Your task to perform on an android device: toggle translation in the chrome app Image 0: 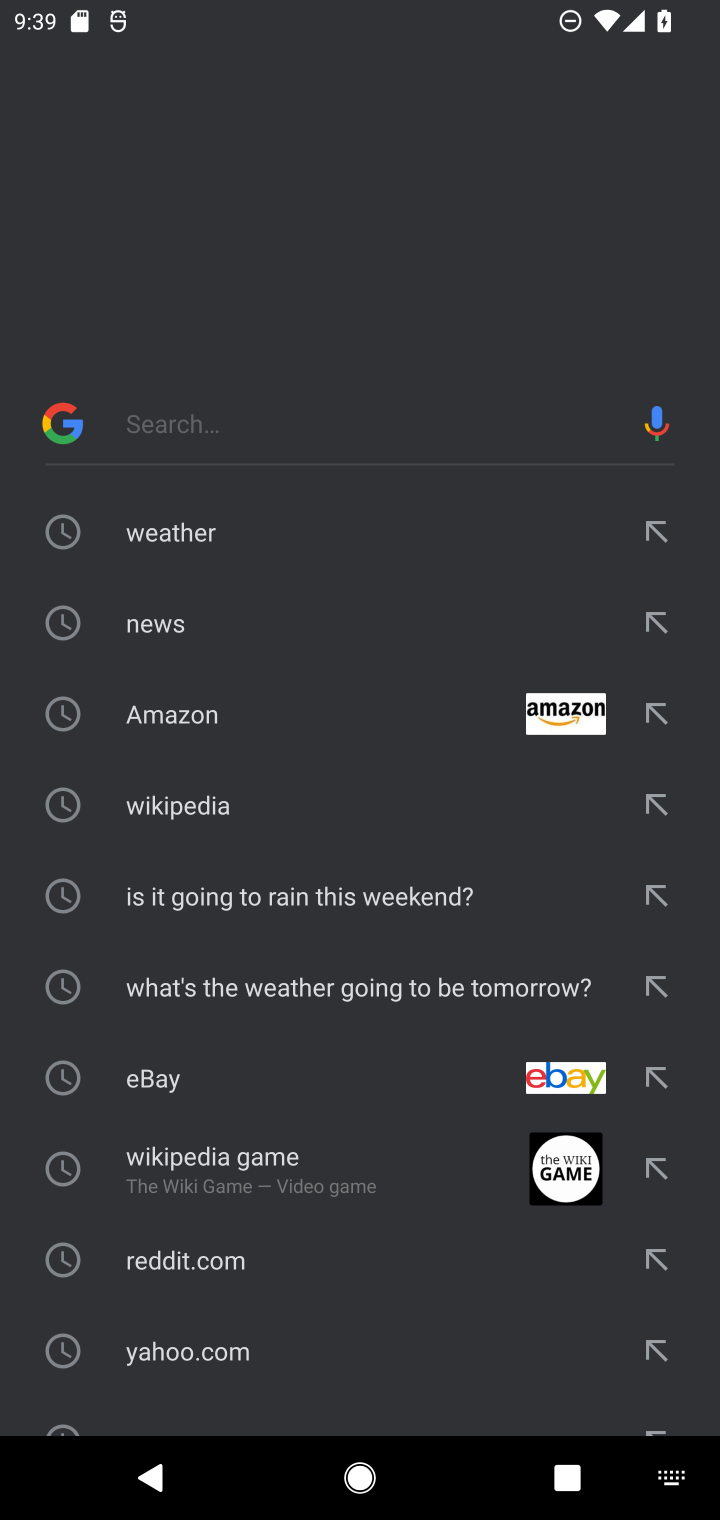
Step 0: press home button
Your task to perform on an android device: toggle translation in the chrome app Image 1: 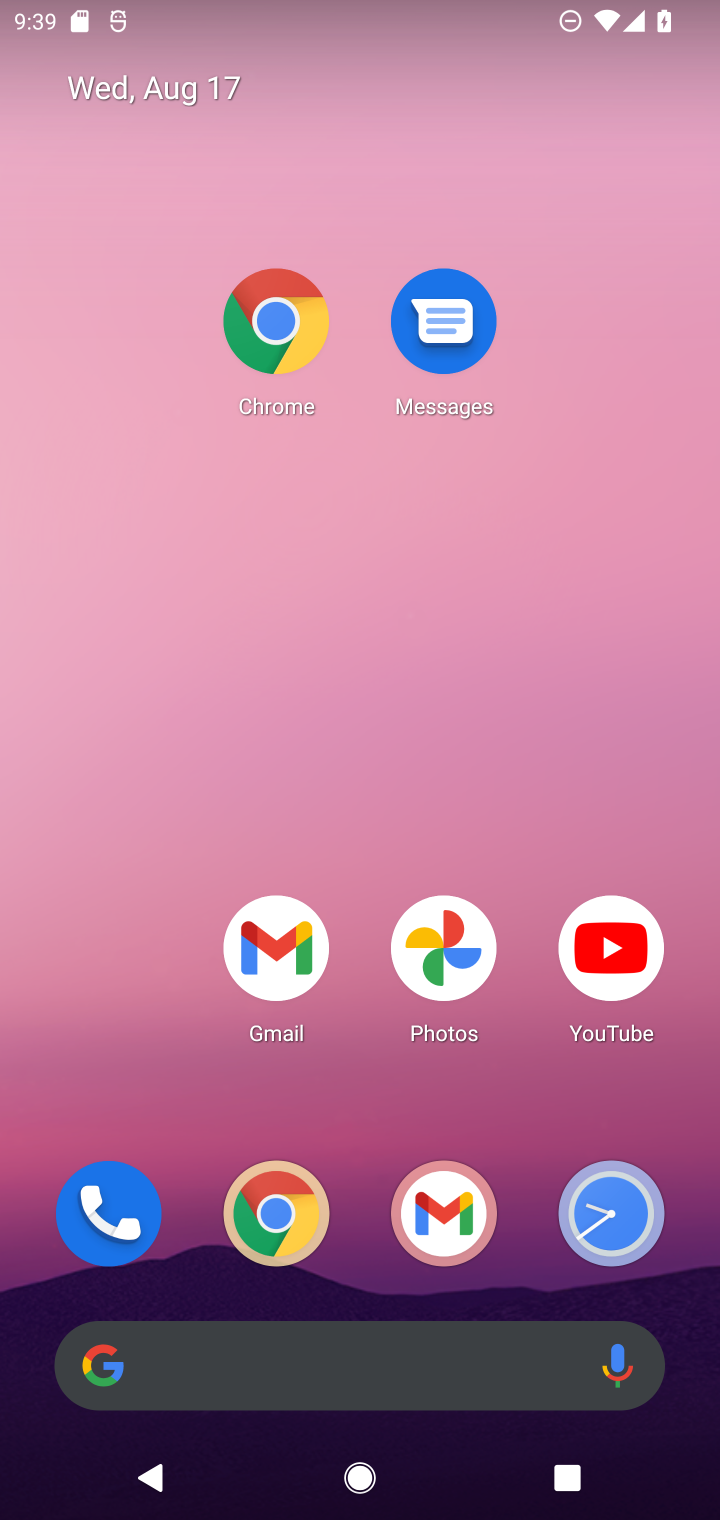
Step 1: click (274, 1189)
Your task to perform on an android device: toggle translation in the chrome app Image 2: 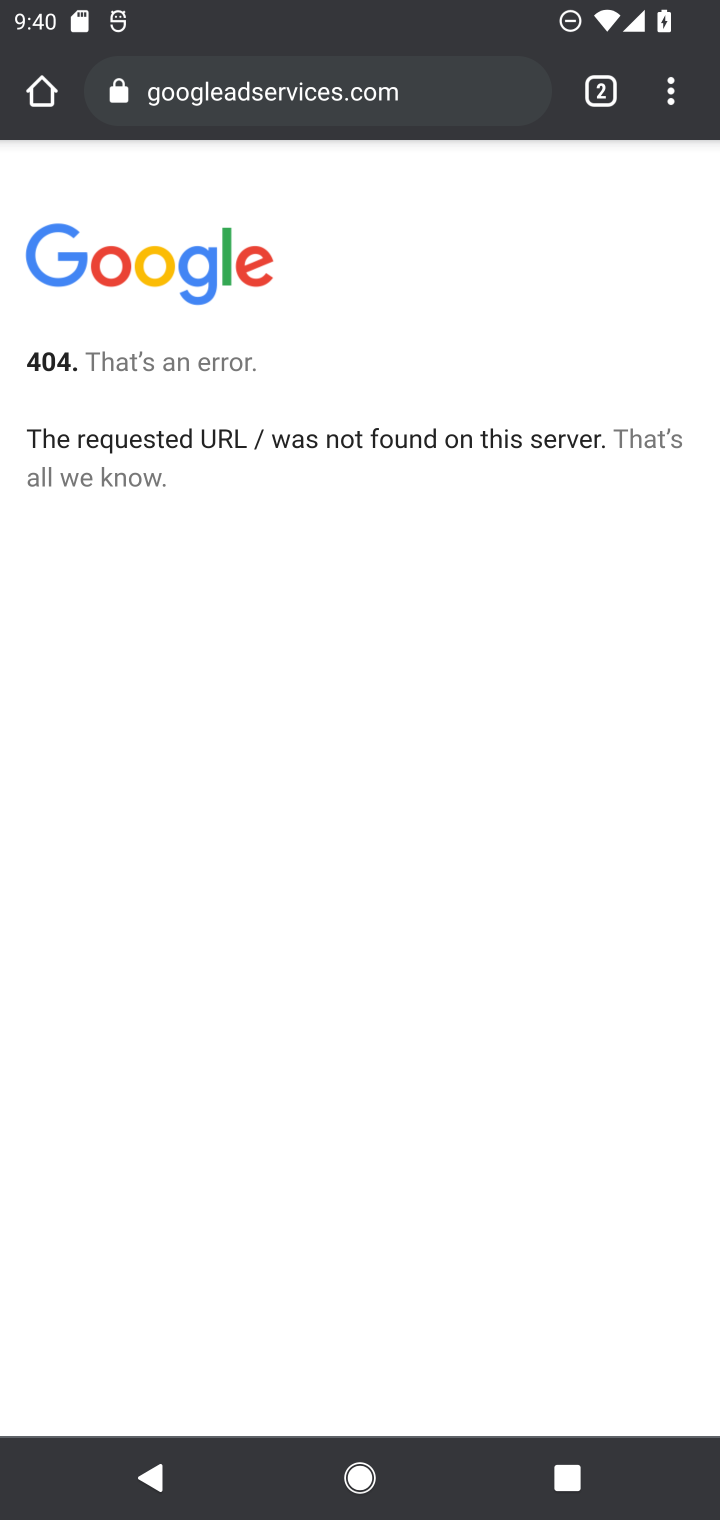
Step 2: click (693, 103)
Your task to perform on an android device: toggle translation in the chrome app Image 3: 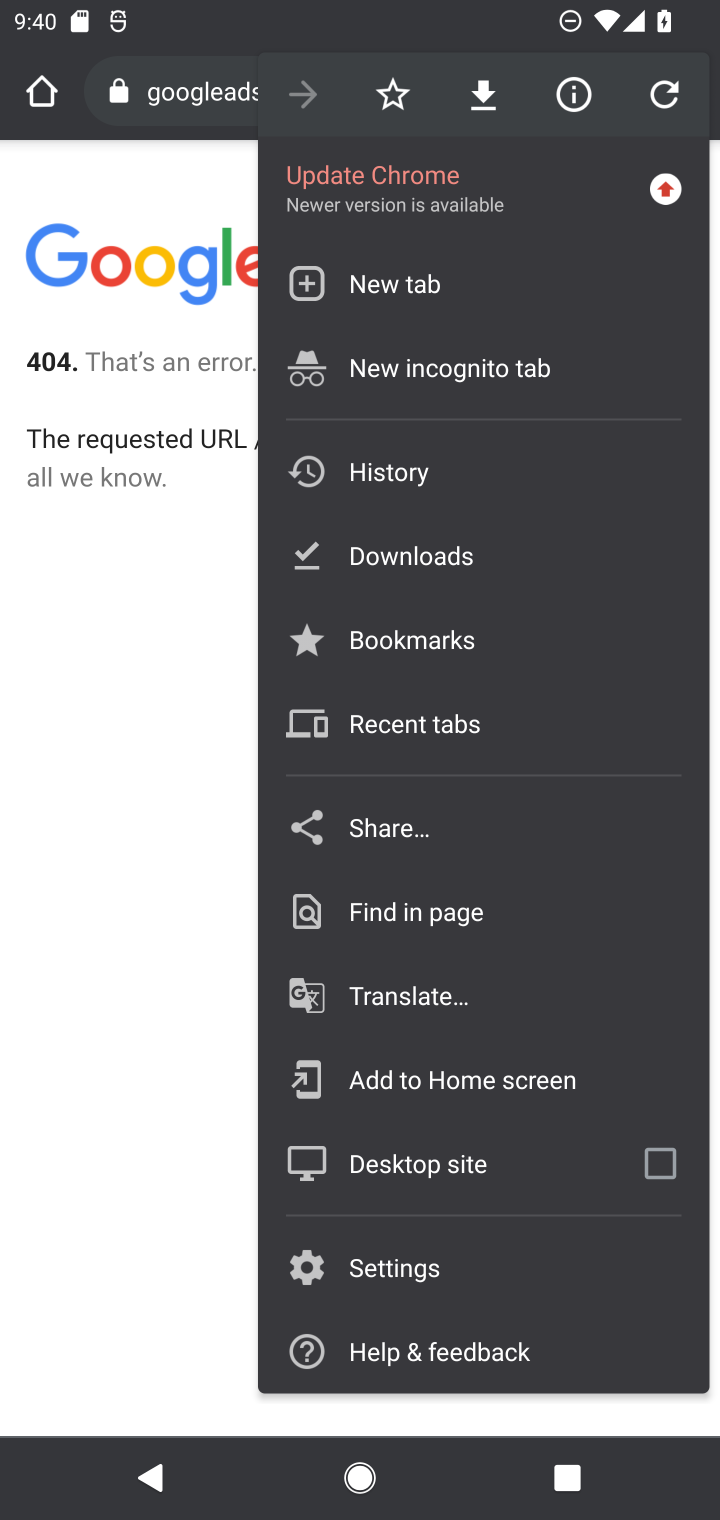
Step 3: click (403, 1240)
Your task to perform on an android device: toggle translation in the chrome app Image 4: 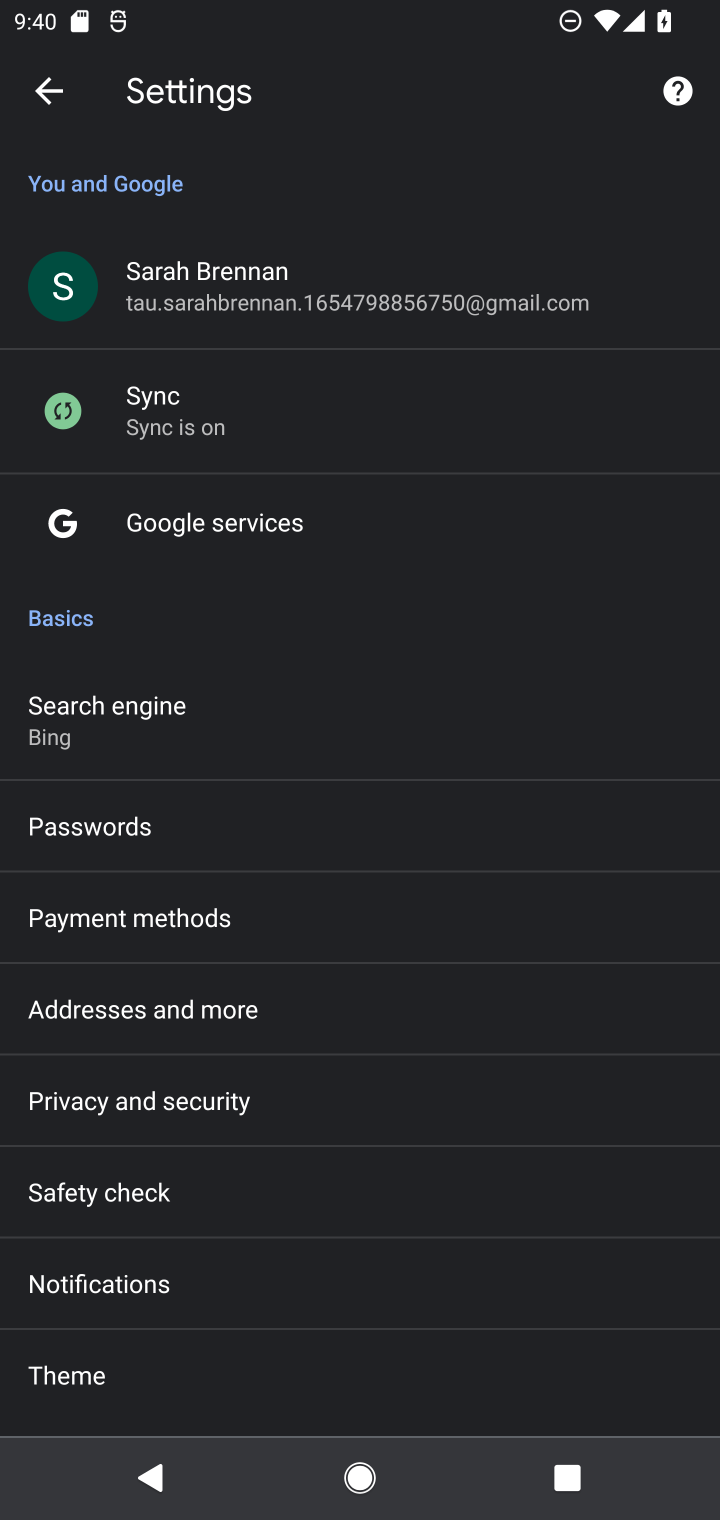
Step 4: drag from (292, 1270) to (294, 738)
Your task to perform on an android device: toggle translation in the chrome app Image 5: 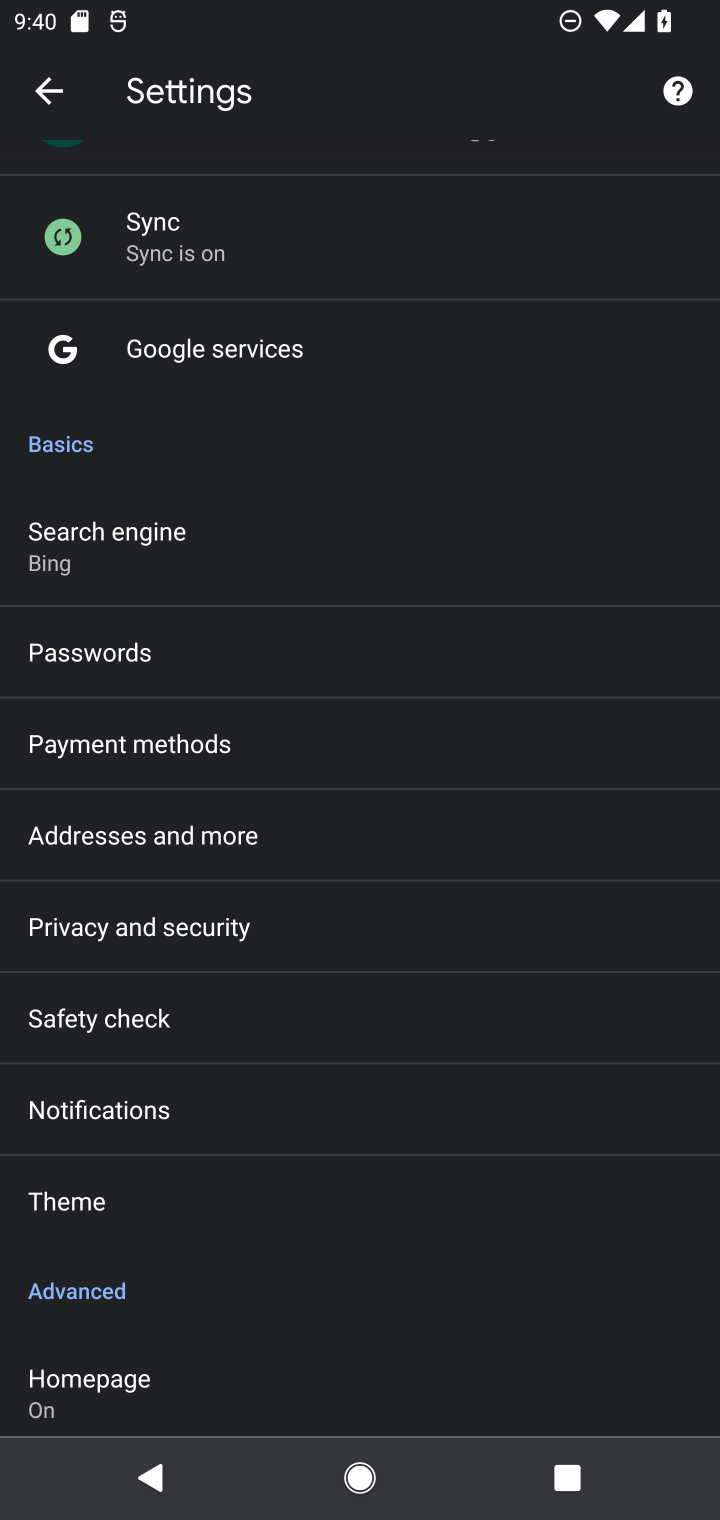
Step 5: drag from (268, 1313) to (221, 823)
Your task to perform on an android device: toggle translation in the chrome app Image 6: 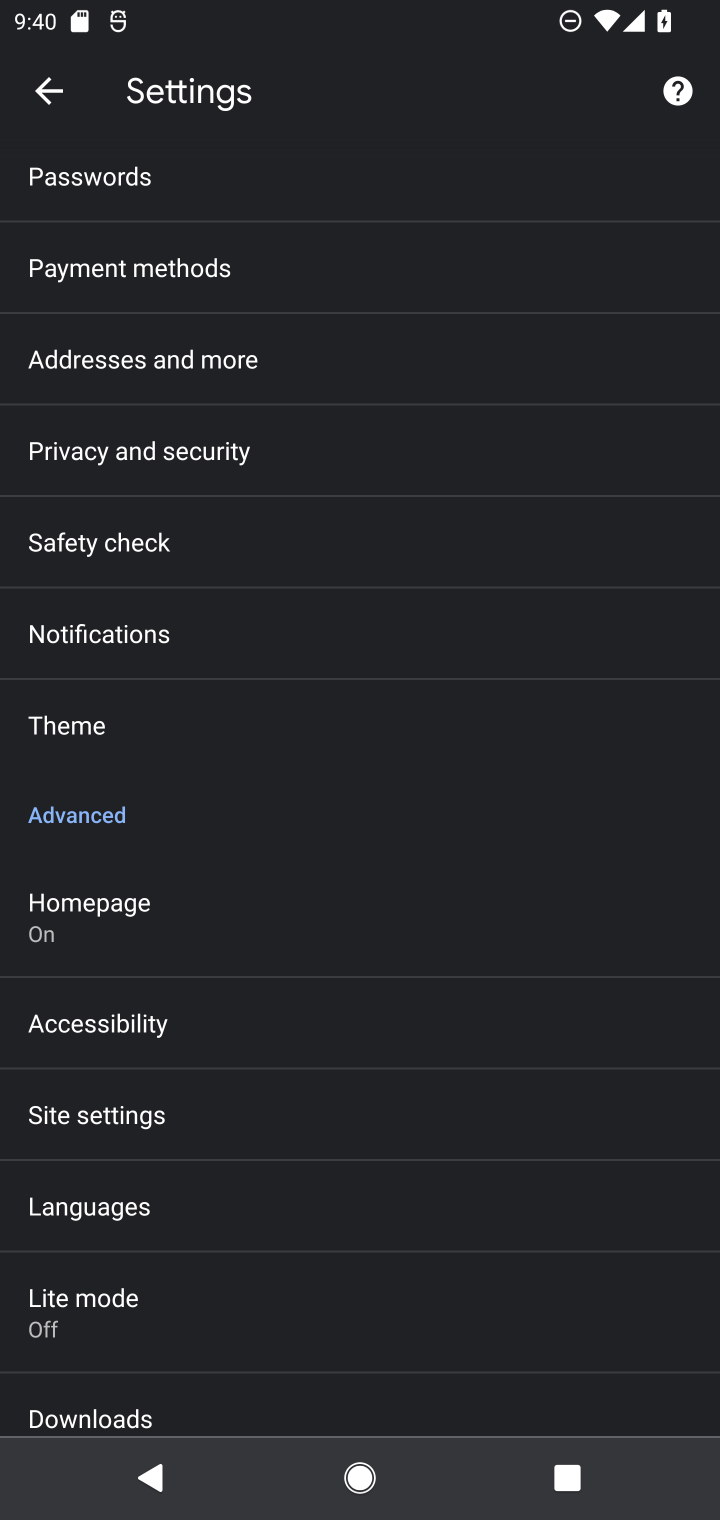
Step 6: click (224, 1188)
Your task to perform on an android device: toggle translation in the chrome app Image 7: 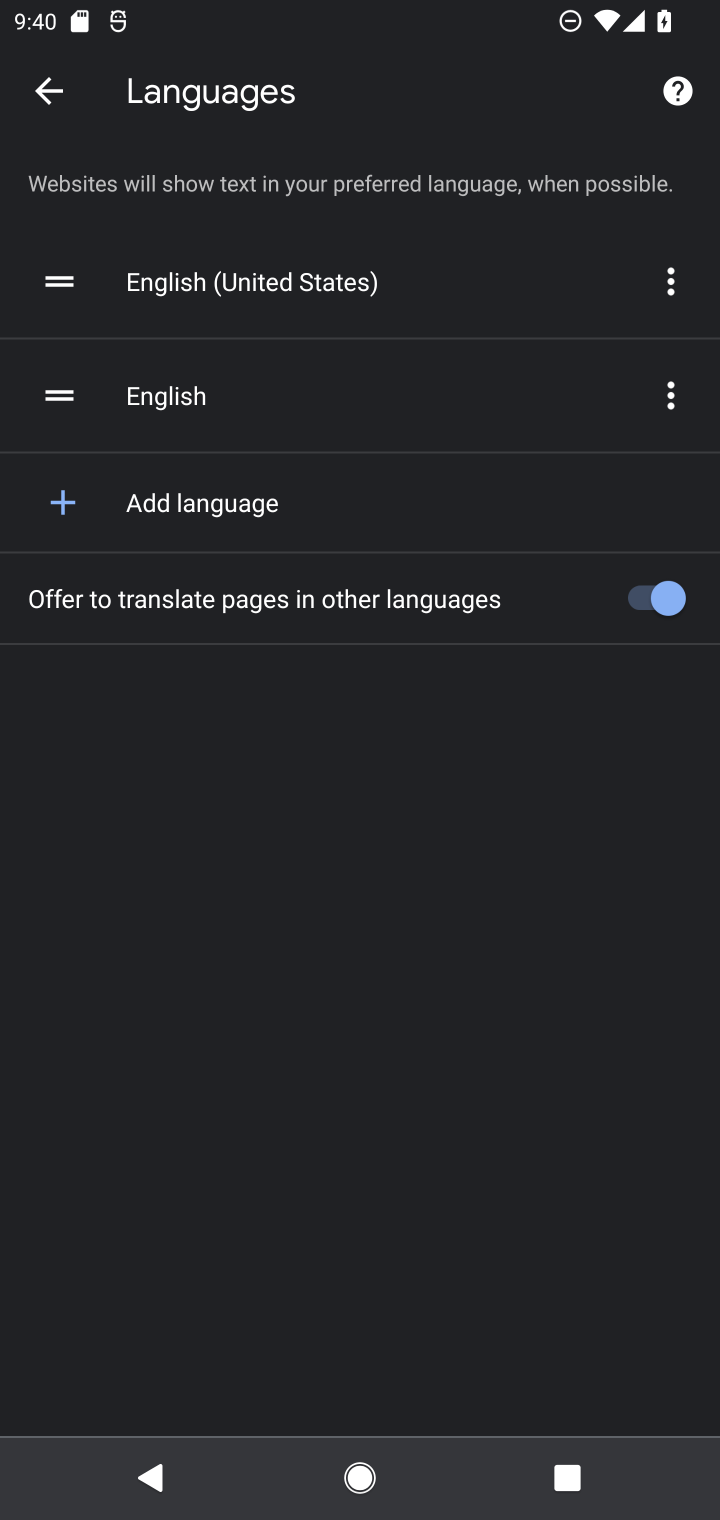
Step 7: click (660, 536)
Your task to perform on an android device: toggle translation in the chrome app Image 8: 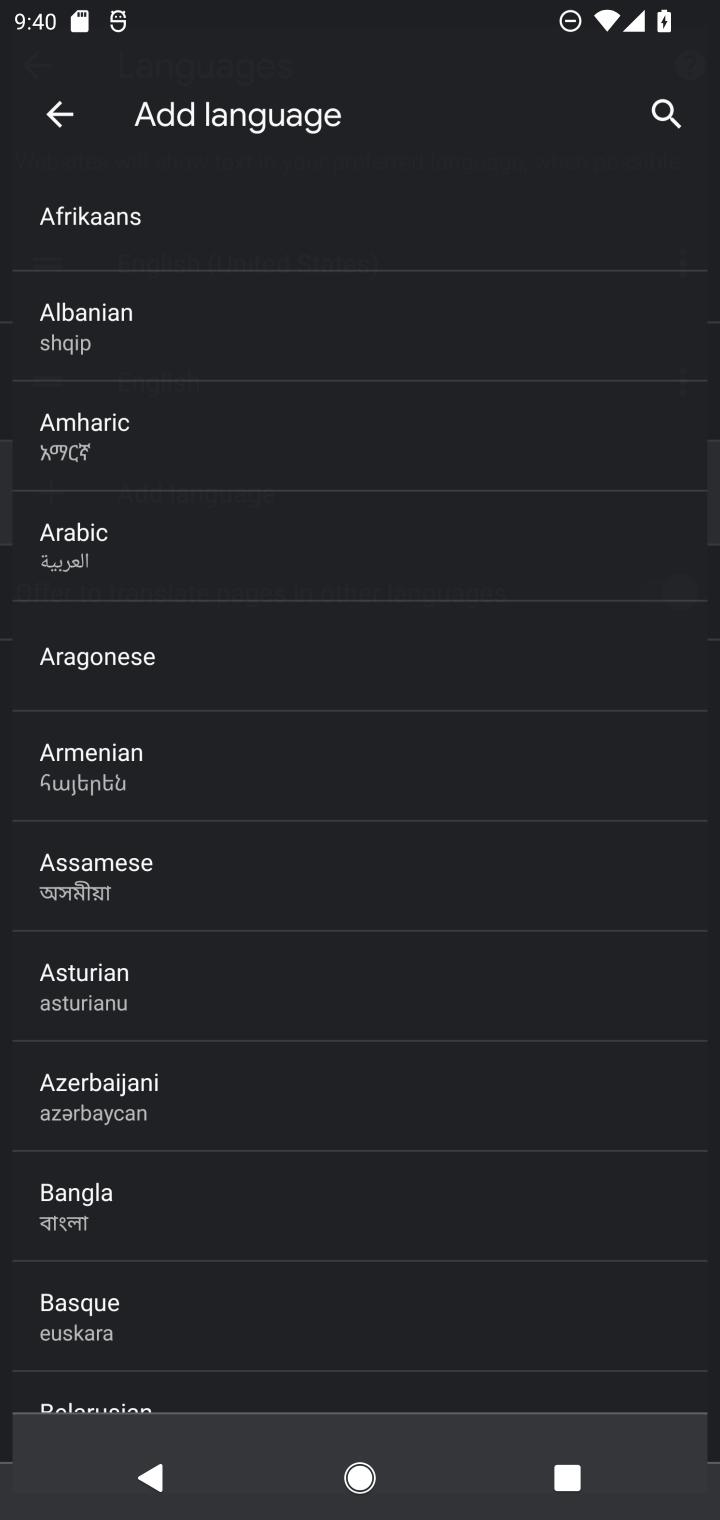
Step 8: task complete